Your task to perform on an android device: turn off wifi Image 0: 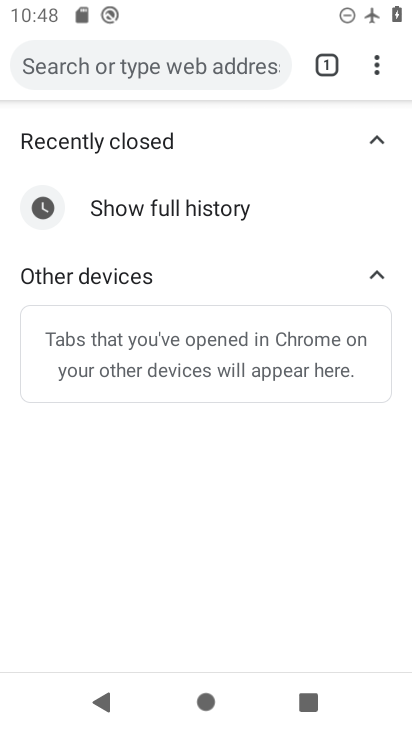
Step 0: press home button
Your task to perform on an android device: turn off wifi Image 1: 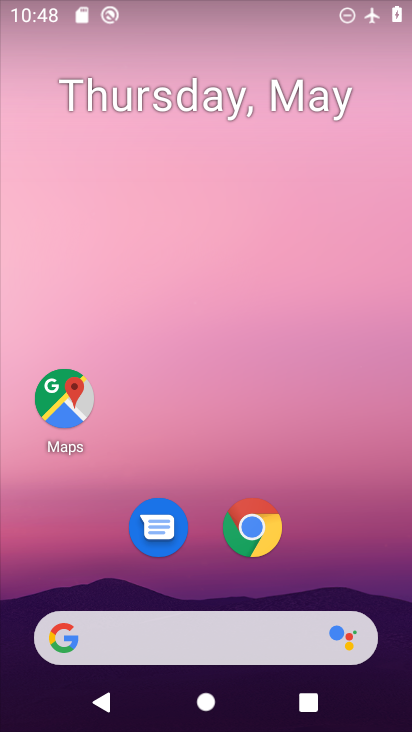
Step 1: drag from (346, 572) to (300, 86)
Your task to perform on an android device: turn off wifi Image 2: 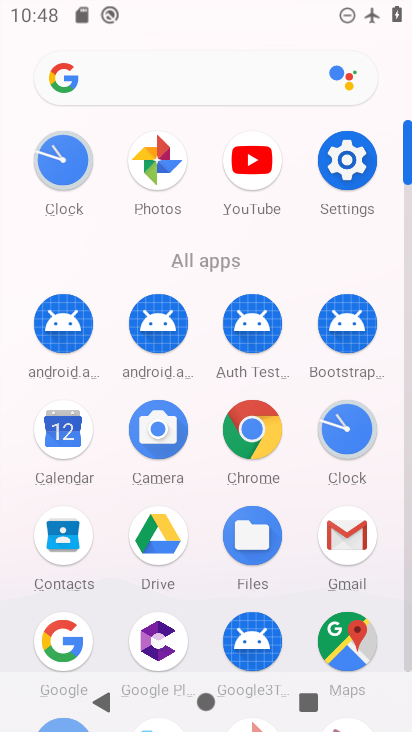
Step 2: click (361, 159)
Your task to perform on an android device: turn off wifi Image 3: 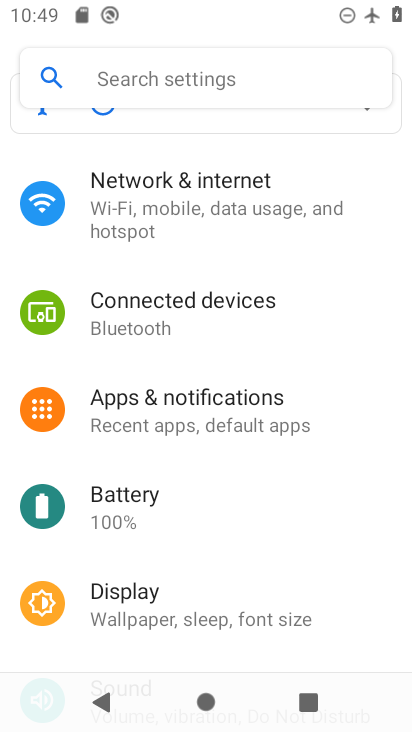
Step 3: click (227, 185)
Your task to perform on an android device: turn off wifi Image 4: 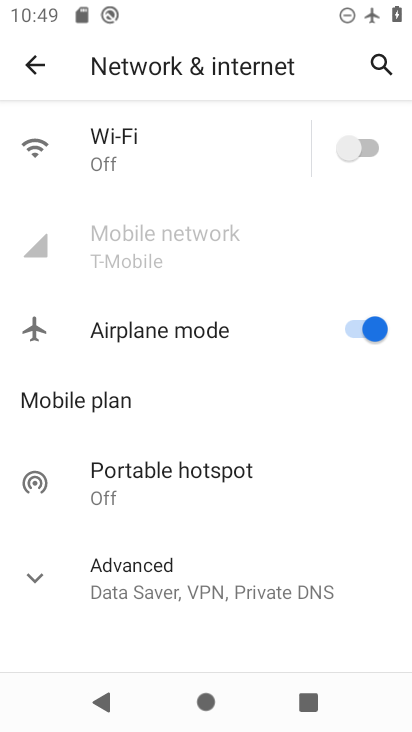
Step 4: task complete